Your task to perform on an android device: turn on sleep mode Image 0: 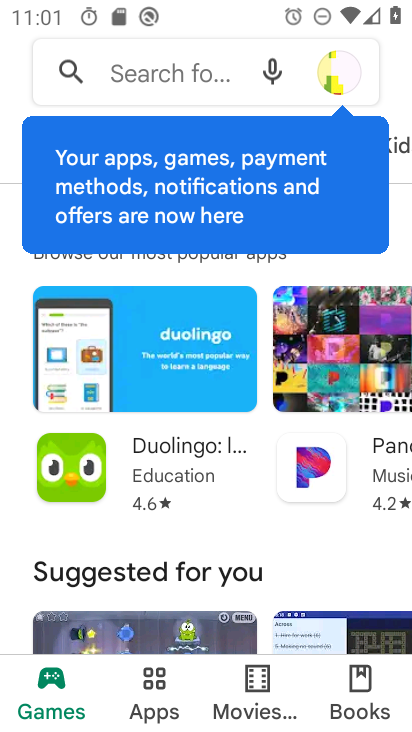
Step 0: press home button
Your task to perform on an android device: turn on sleep mode Image 1: 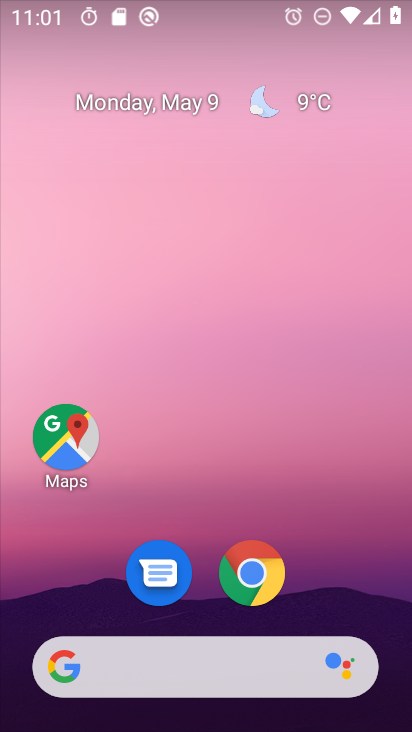
Step 1: drag from (345, 563) to (288, 108)
Your task to perform on an android device: turn on sleep mode Image 2: 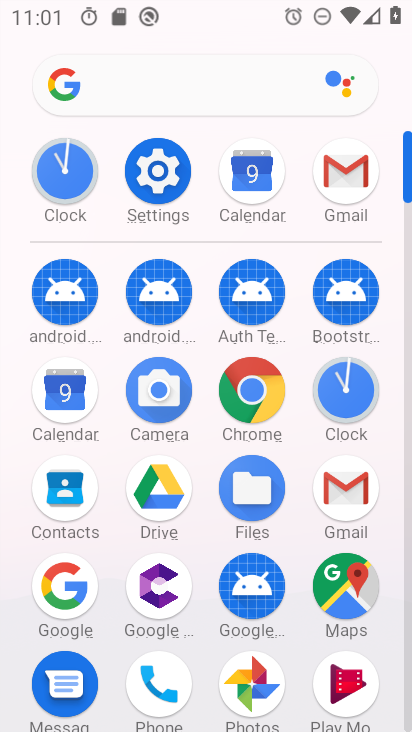
Step 2: click (170, 172)
Your task to perform on an android device: turn on sleep mode Image 3: 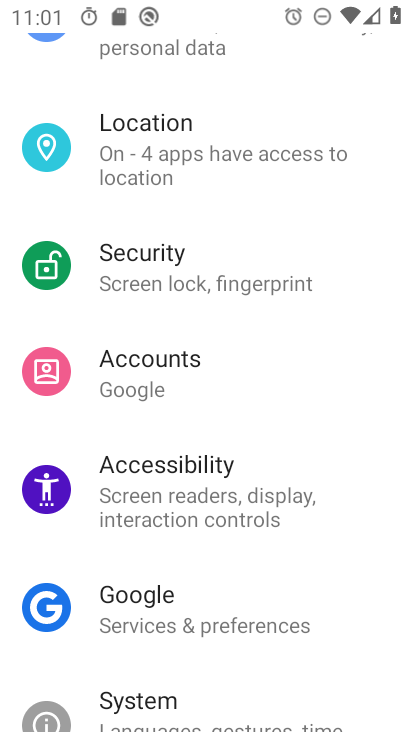
Step 3: drag from (195, 503) to (213, 593)
Your task to perform on an android device: turn on sleep mode Image 4: 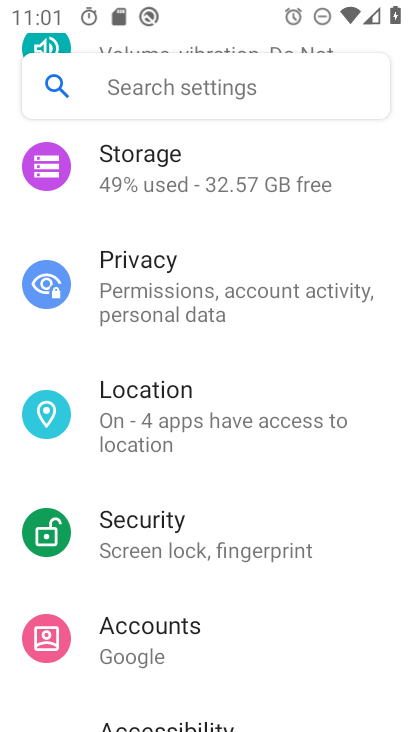
Step 4: drag from (240, 249) to (236, 587)
Your task to perform on an android device: turn on sleep mode Image 5: 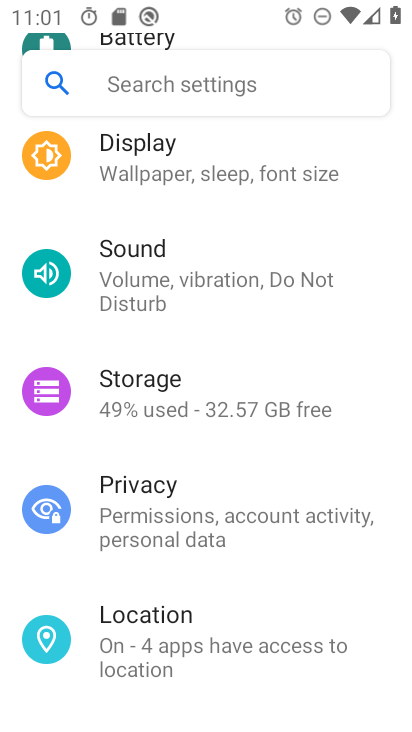
Step 5: click (201, 173)
Your task to perform on an android device: turn on sleep mode Image 6: 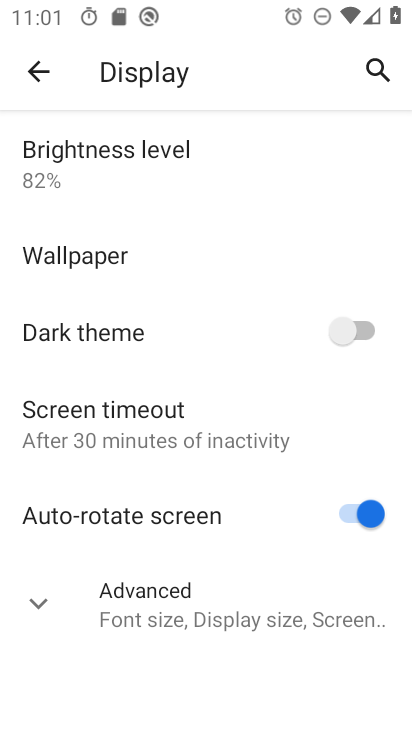
Step 6: click (139, 432)
Your task to perform on an android device: turn on sleep mode Image 7: 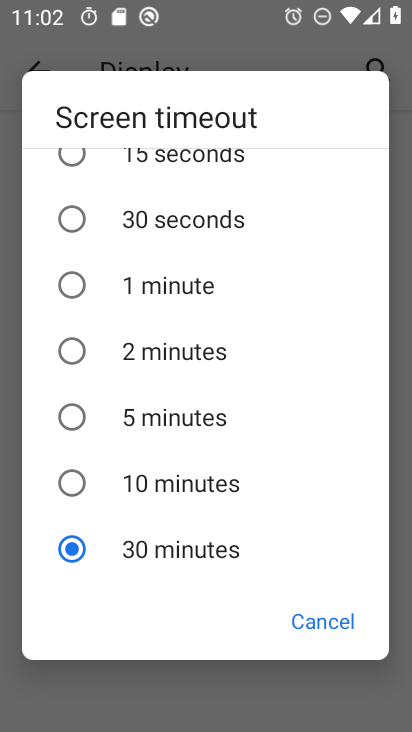
Step 7: task complete